Your task to perform on an android device: Open settings on Google Maps Image 0: 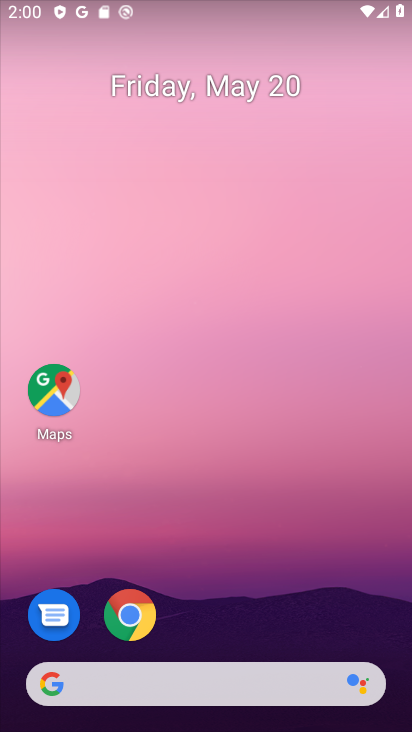
Step 0: click (61, 388)
Your task to perform on an android device: Open settings on Google Maps Image 1: 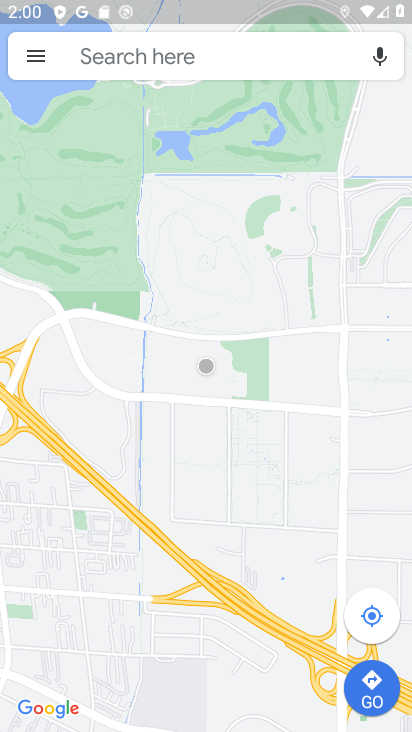
Step 1: click (34, 59)
Your task to perform on an android device: Open settings on Google Maps Image 2: 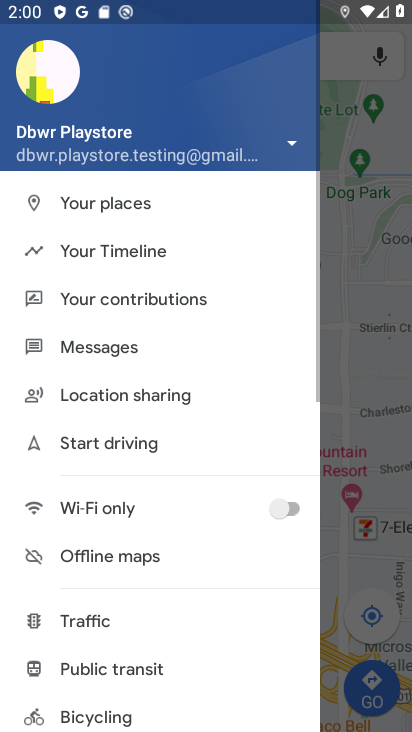
Step 2: drag from (123, 632) to (100, 154)
Your task to perform on an android device: Open settings on Google Maps Image 3: 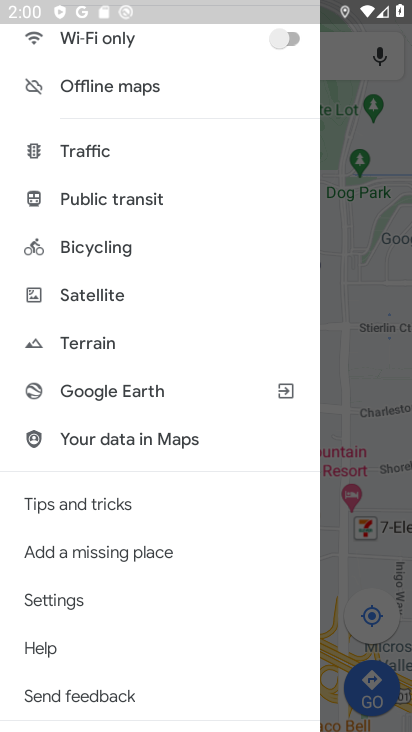
Step 3: click (175, 595)
Your task to perform on an android device: Open settings on Google Maps Image 4: 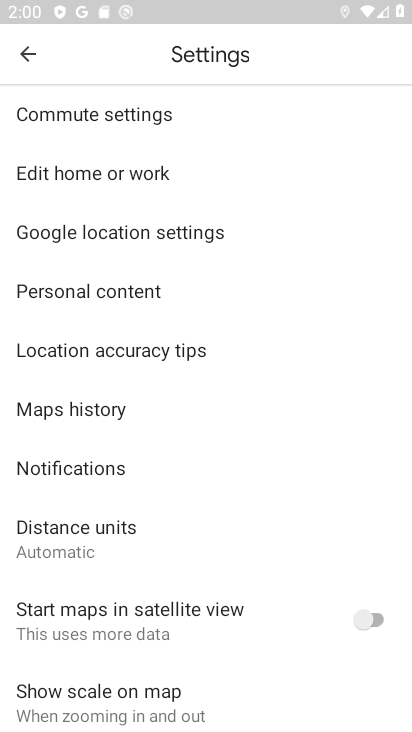
Step 4: task complete